Your task to perform on an android device: Go to wifi settings Image 0: 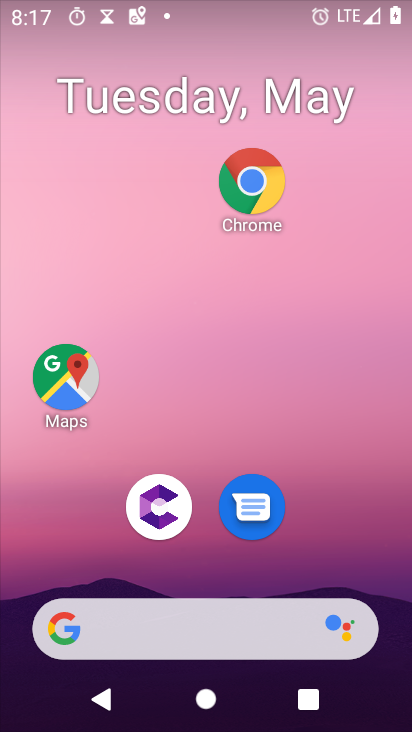
Step 0: drag from (290, 559) to (342, 17)
Your task to perform on an android device: Go to wifi settings Image 1: 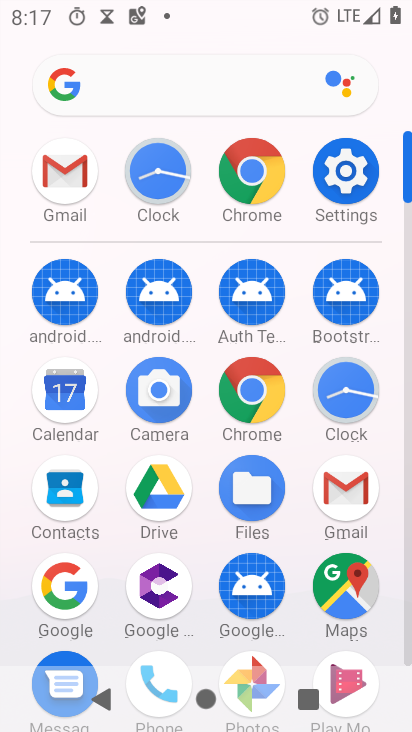
Step 1: click (354, 193)
Your task to perform on an android device: Go to wifi settings Image 2: 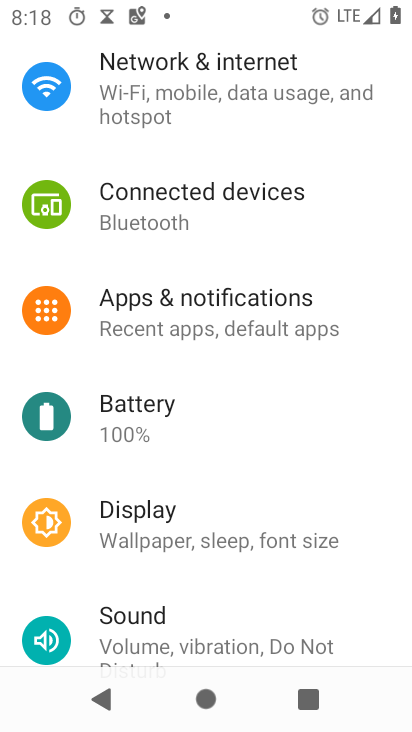
Step 2: click (222, 110)
Your task to perform on an android device: Go to wifi settings Image 3: 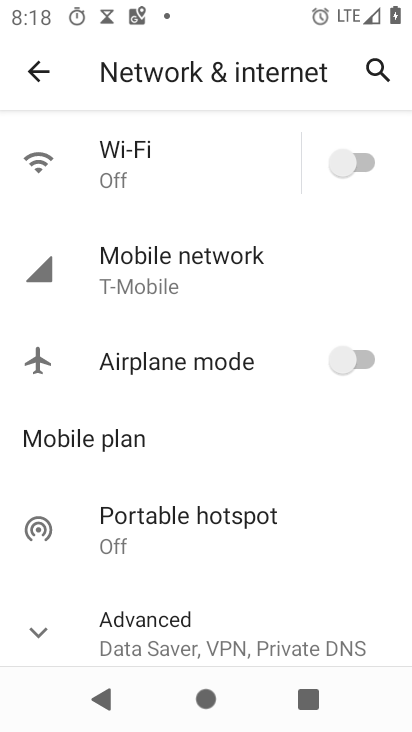
Step 3: click (77, 150)
Your task to perform on an android device: Go to wifi settings Image 4: 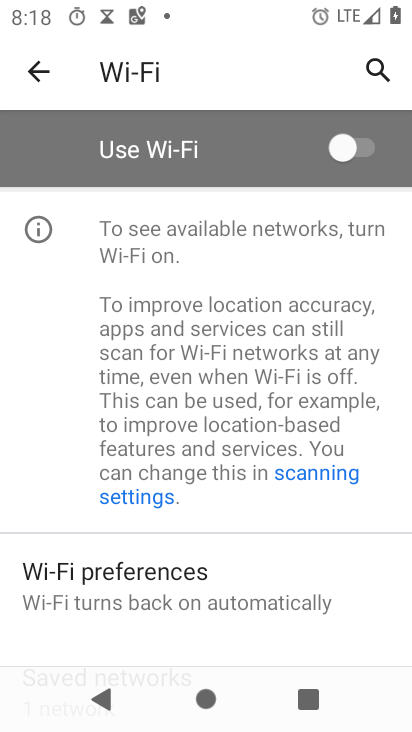
Step 4: task complete